Your task to perform on an android device: check data usage Image 0: 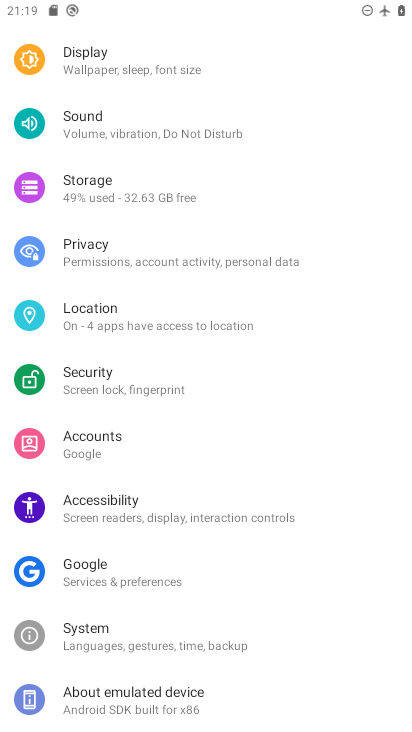
Step 0: drag from (234, 171) to (213, 631)
Your task to perform on an android device: check data usage Image 1: 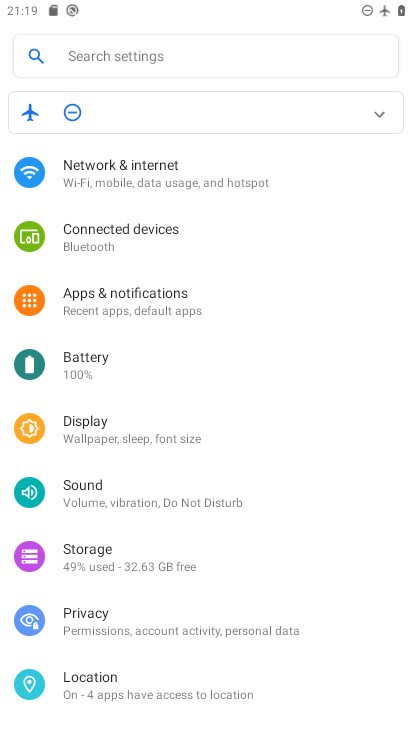
Step 1: click (165, 172)
Your task to perform on an android device: check data usage Image 2: 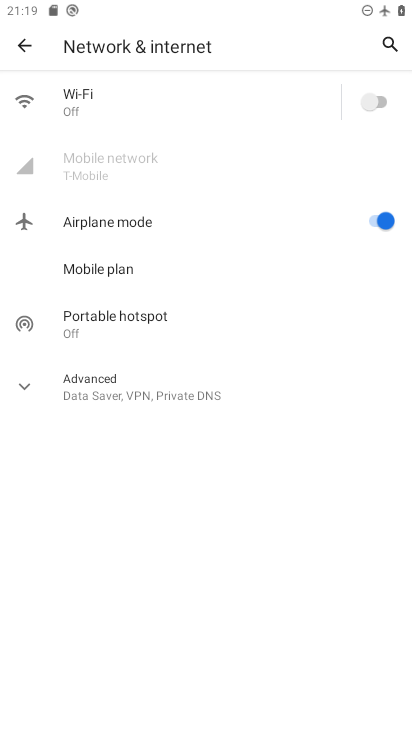
Step 2: click (138, 389)
Your task to perform on an android device: check data usage Image 3: 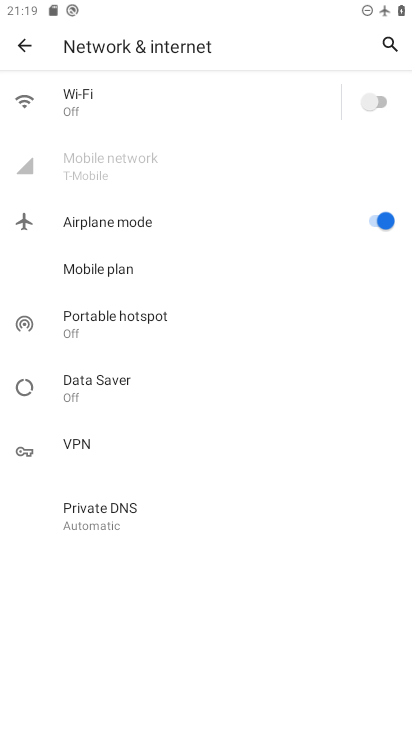
Step 3: click (118, 113)
Your task to perform on an android device: check data usage Image 4: 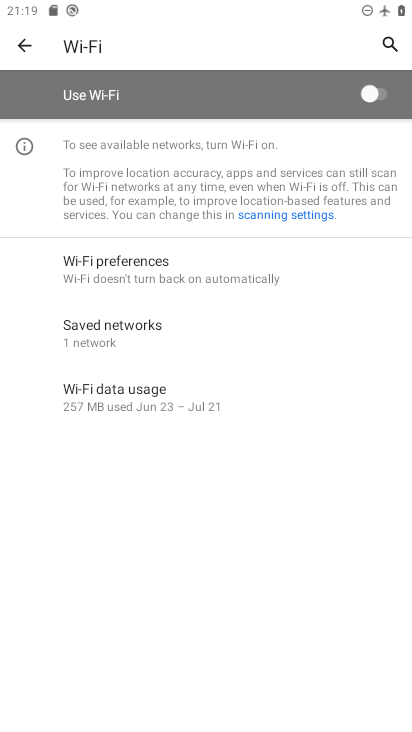
Step 4: click (155, 410)
Your task to perform on an android device: check data usage Image 5: 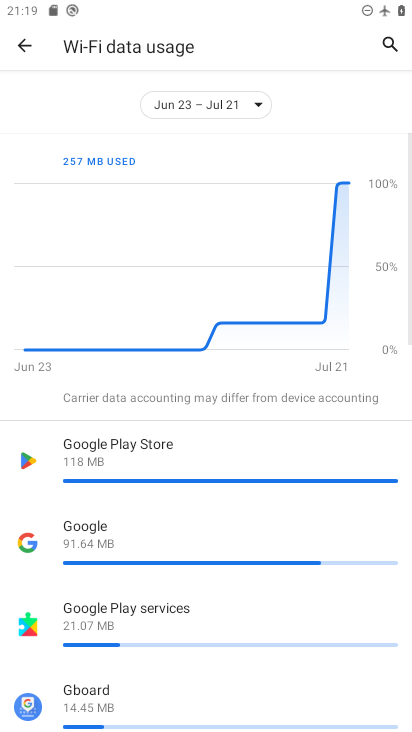
Step 5: task complete